Your task to perform on an android device: Toggle the flashlight Image 0: 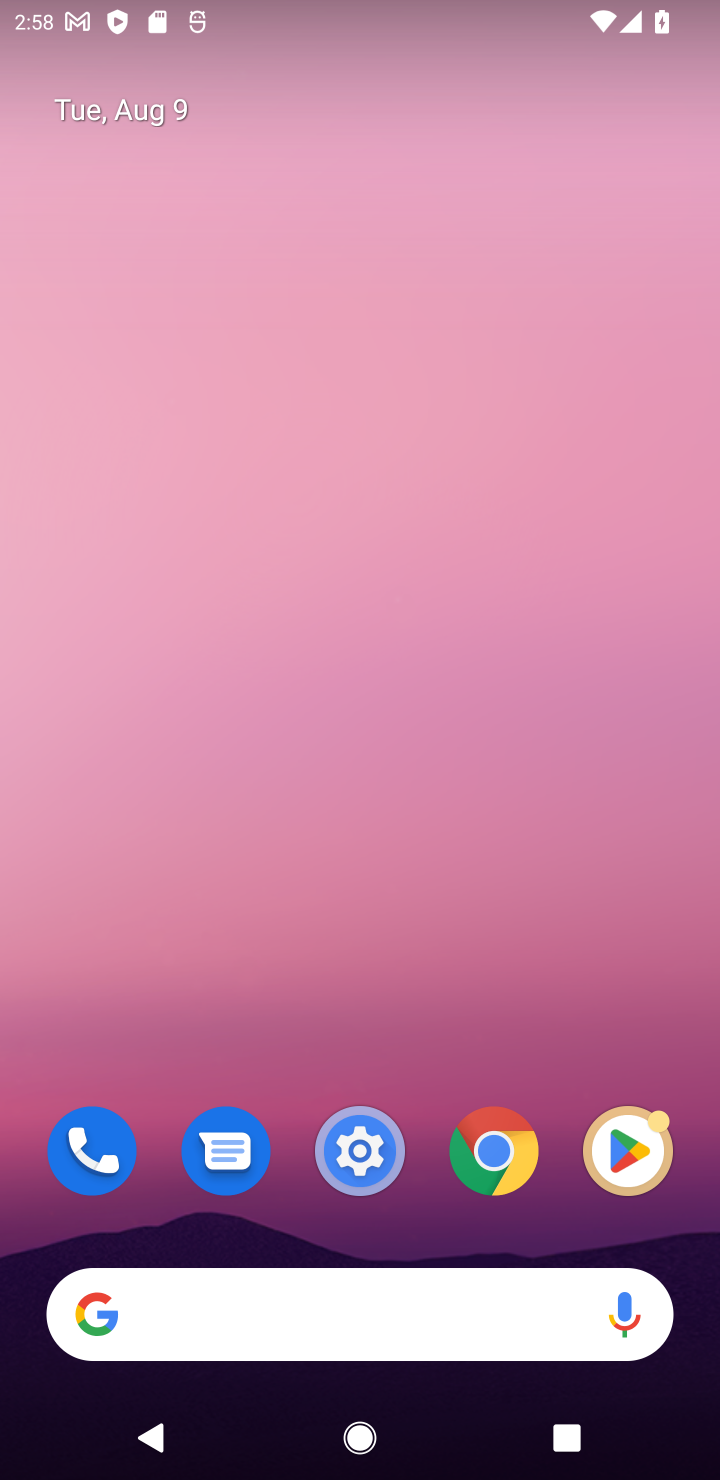
Step 0: drag from (290, 471) to (309, 705)
Your task to perform on an android device: Toggle the flashlight Image 1: 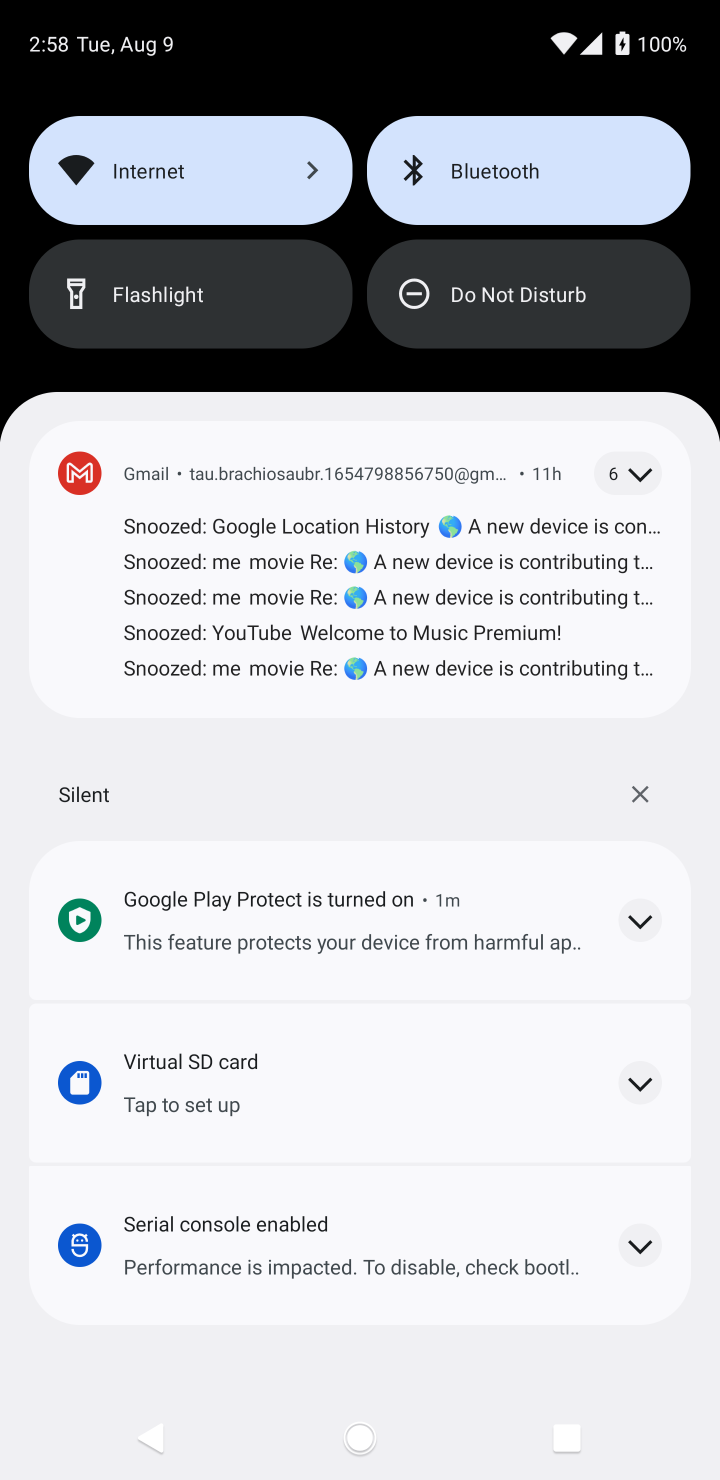
Step 1: task complete